Your task to perform on an android device: turn pop-ups off in chrome Image 0: 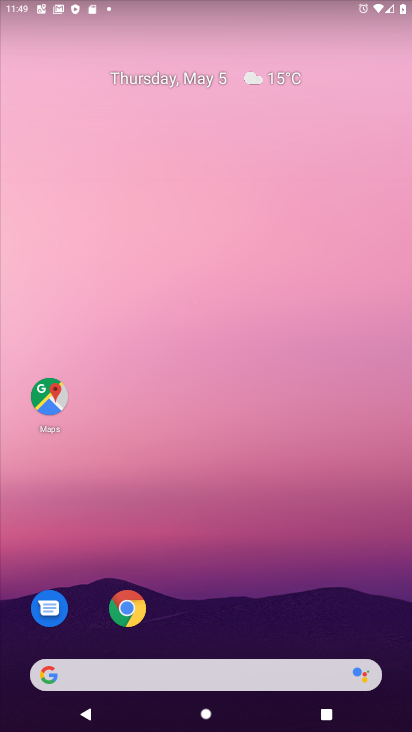
Step 0: click (132, 616)
Your task to perform on an android device: turn pop-ups off in chrome Image 1: 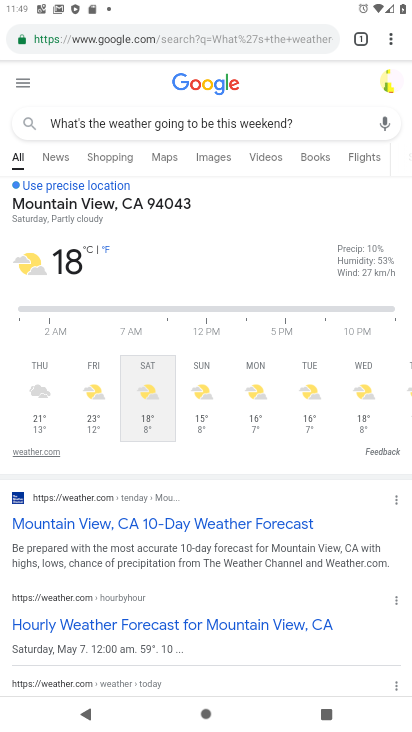
Step 1: drag from (391, 41) to (273, 437)
Your task to perform on an android device: turn pop-ups off in chrome Image 2: 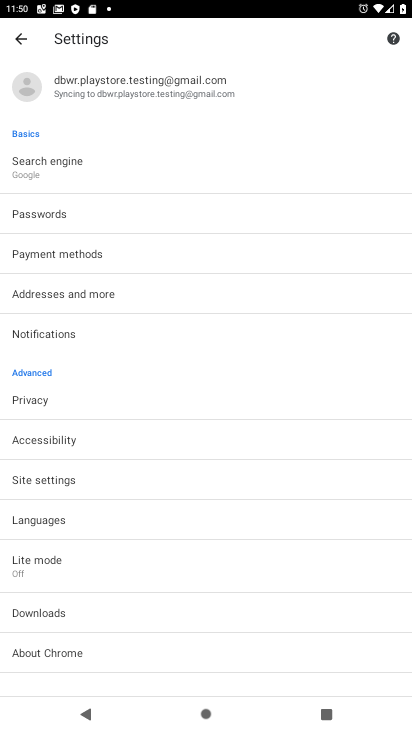
Step 2: click (96, 485)
Your task to perform on an android device: turn pop-ups off in chrome Image 3: 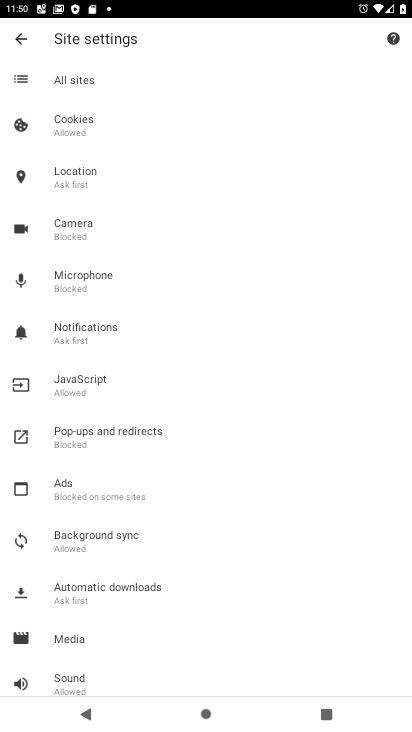
Step 3: click (126, 428)
Your task to perform on an android device: turn pop-ups off in chrome Image 4: 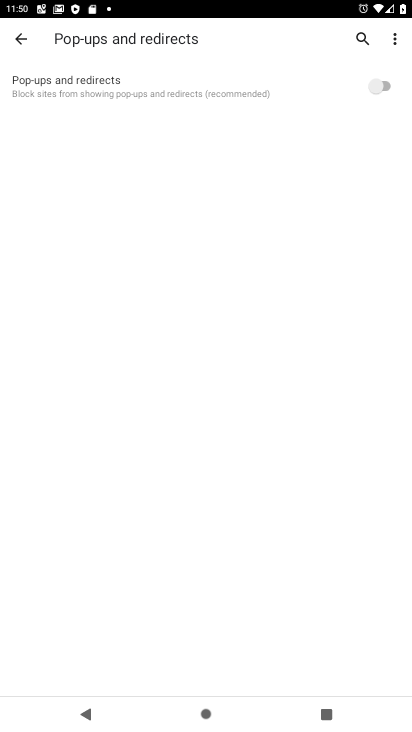
Step 4: task complete